Your task to perform on an android device: open app "Speedtest by Ookla" (install if not already installed) Image 0: 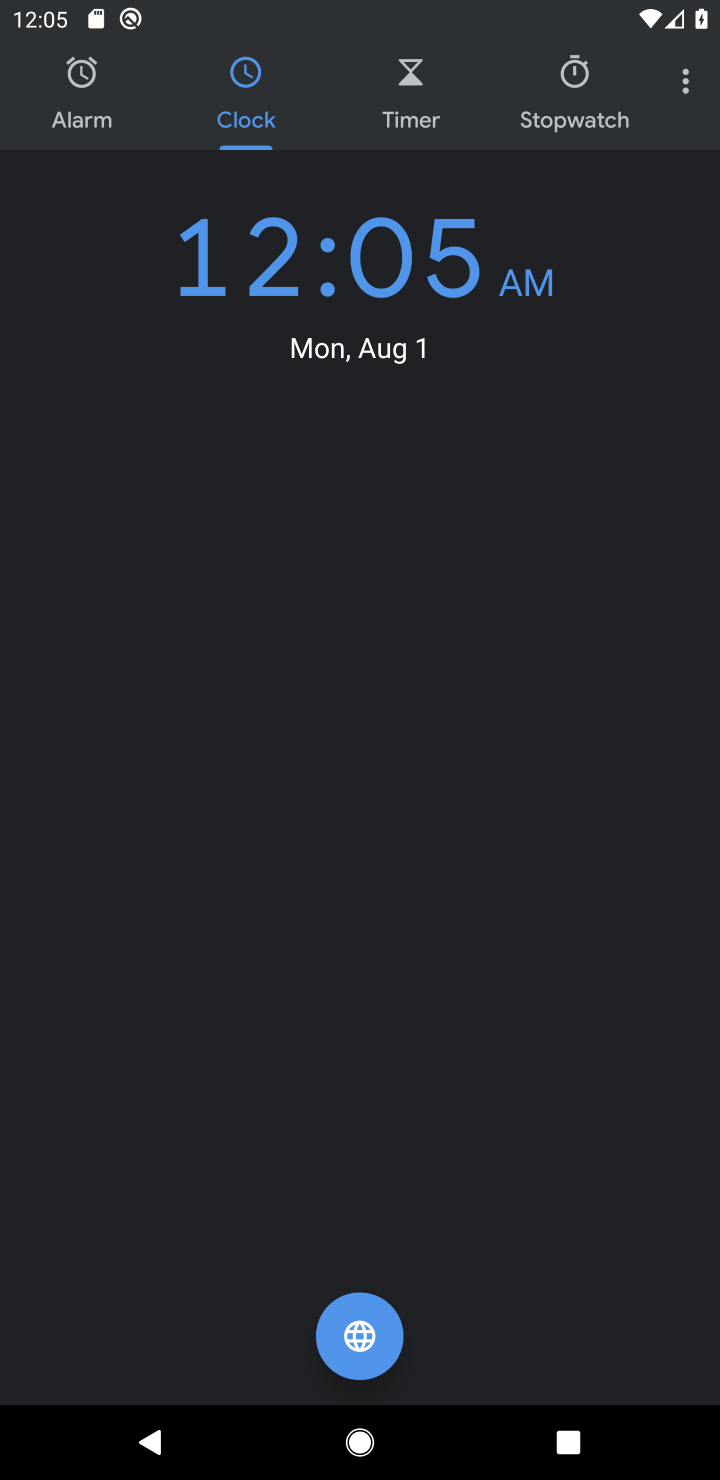
Step 0: press home button
Your task to perform on an android device: open app "Speedtest by Ookla" (install if not already installed) Image 1: 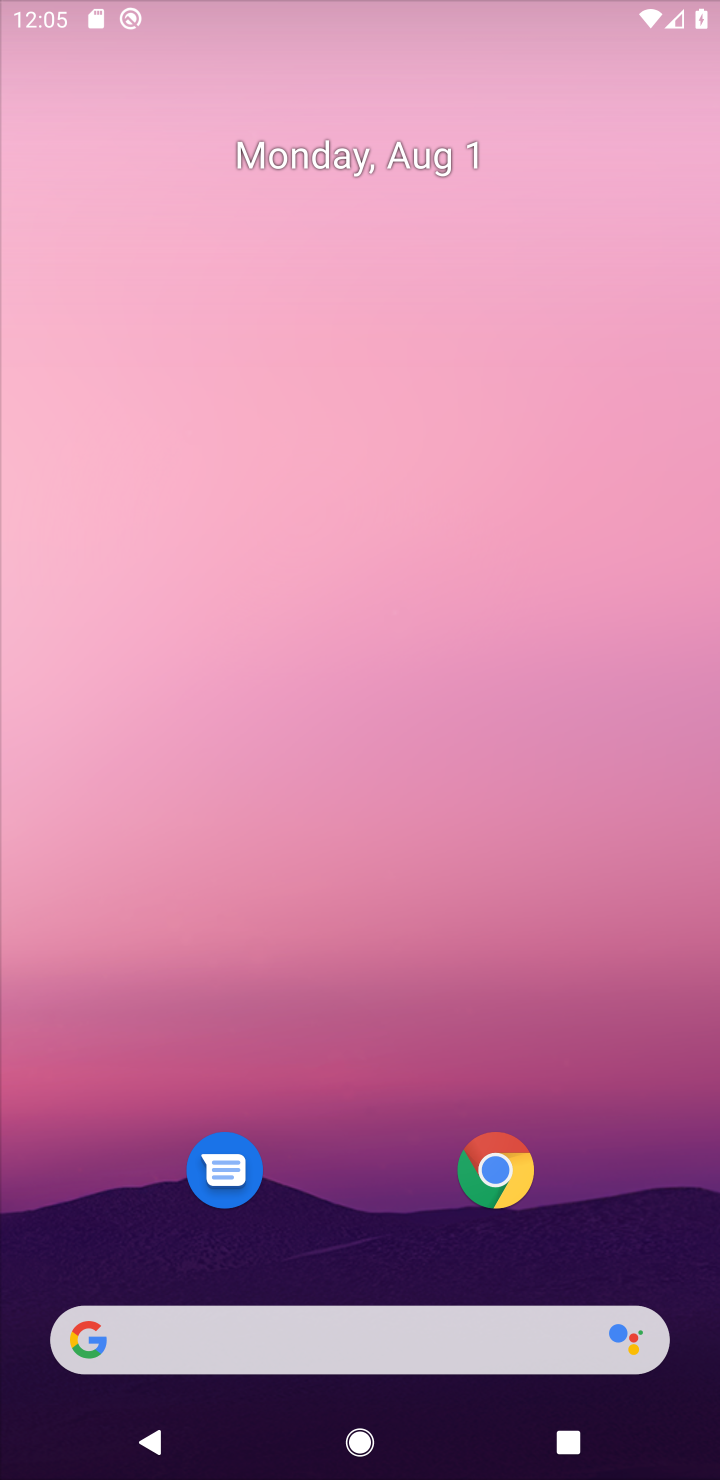
Step 1: drag from (590, 846) to (433, 0)
Your task to perform on an android device: open app "Speedtest by Ookla" (install if not already installed) Image 2: 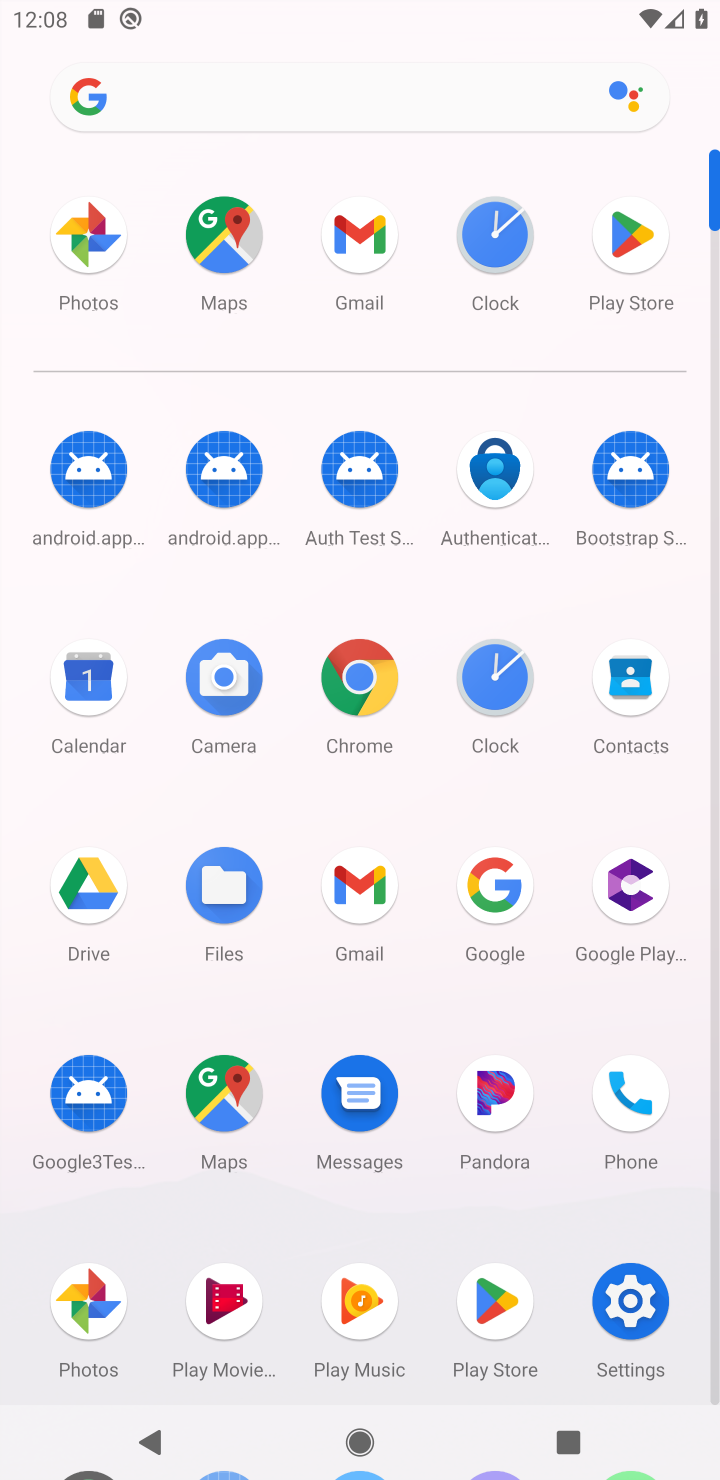
Step 2: click (617, 261)
Your task to perform on an android device: open app "Speedtest by Ookla" (install if not already installed) Image 3: 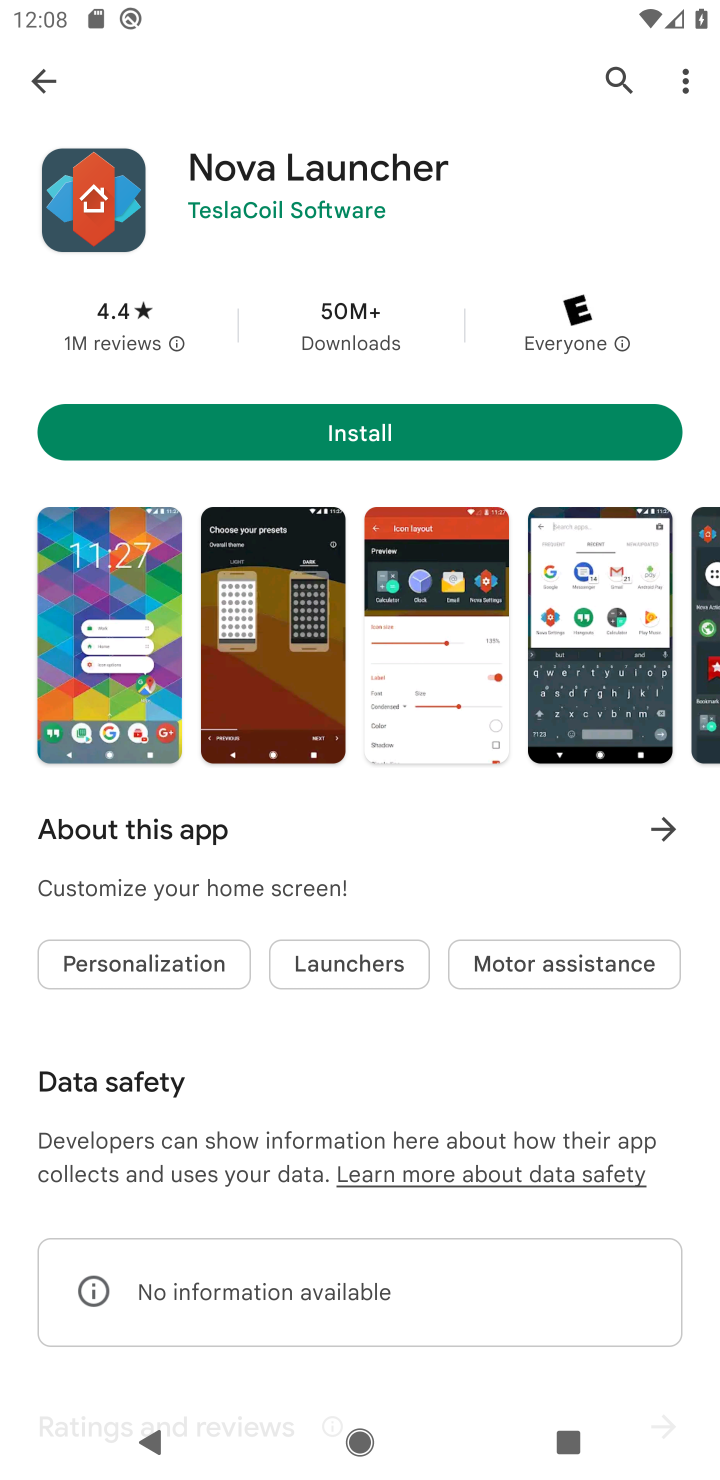
Step 3: press back button
Your task to perform on an android device: open app "Speedtest by Ookla" (install if not already installed) Image 4: 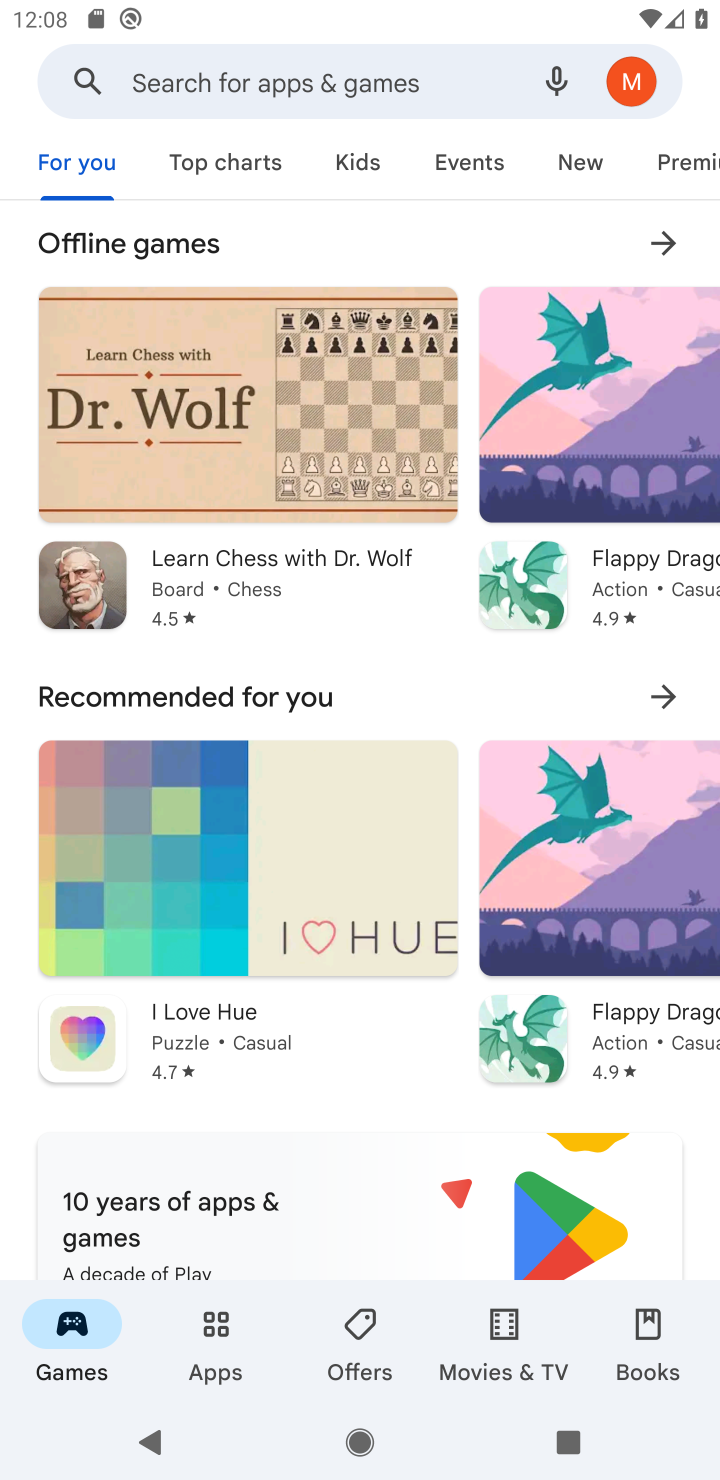
Step 4: click (266, 83)
Your task to perform on an android device: open app "Speedtest by Ookla" (install if not already installed) Image 5: 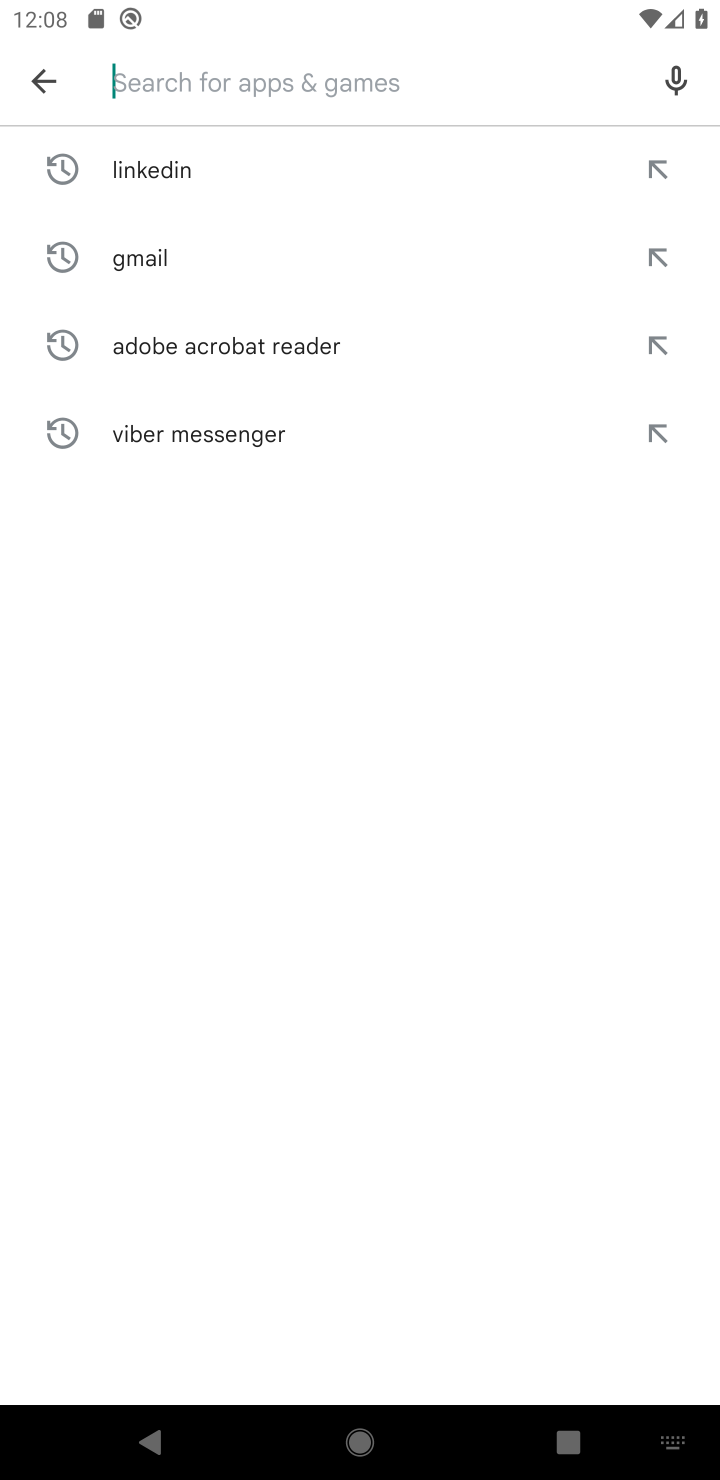
Step 5: type "Speedtest by Ookla"
Your task to perform on an android device: open app "Speedtest by Ookla" (install if not already installed) Image 6: 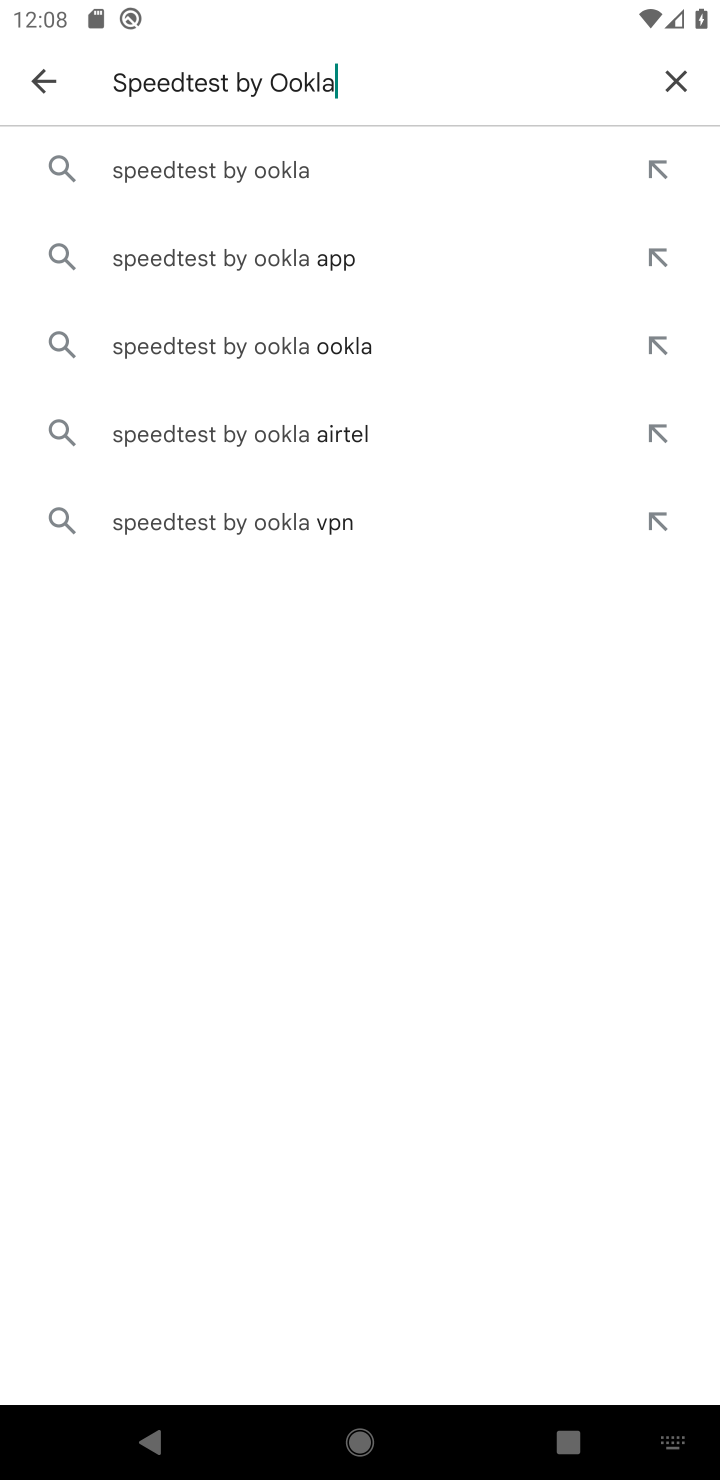
Step 6: click (206, 181)
Your task to perform on an android device: open app "Speedtest by Ookla" (install if not already installed) Image 7: 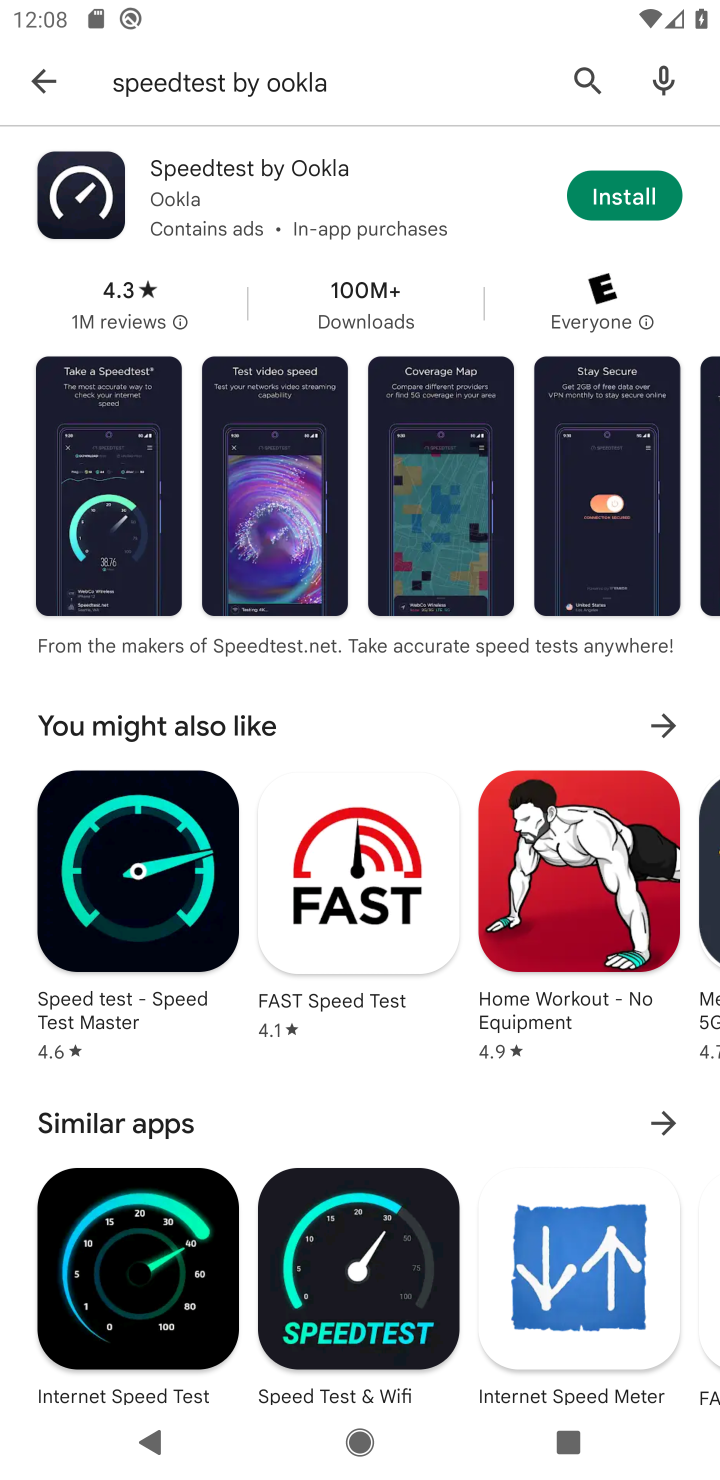
Step 7: task complete